Your task to perform on an android device: uninstall "Google Sheets" Image 0: 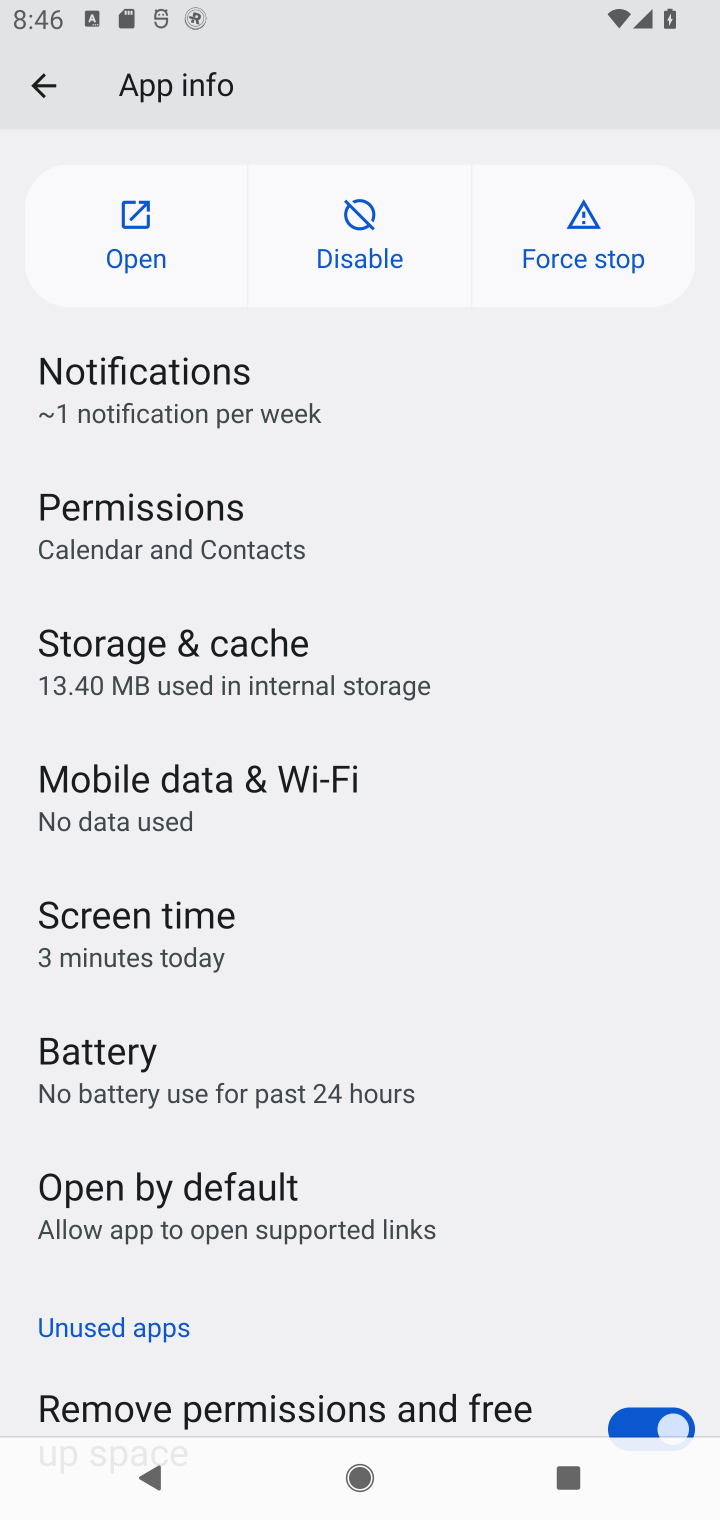
Step 0: press home button
Your task to perform on an android device: uninstall "Google Sheets" Image 1: 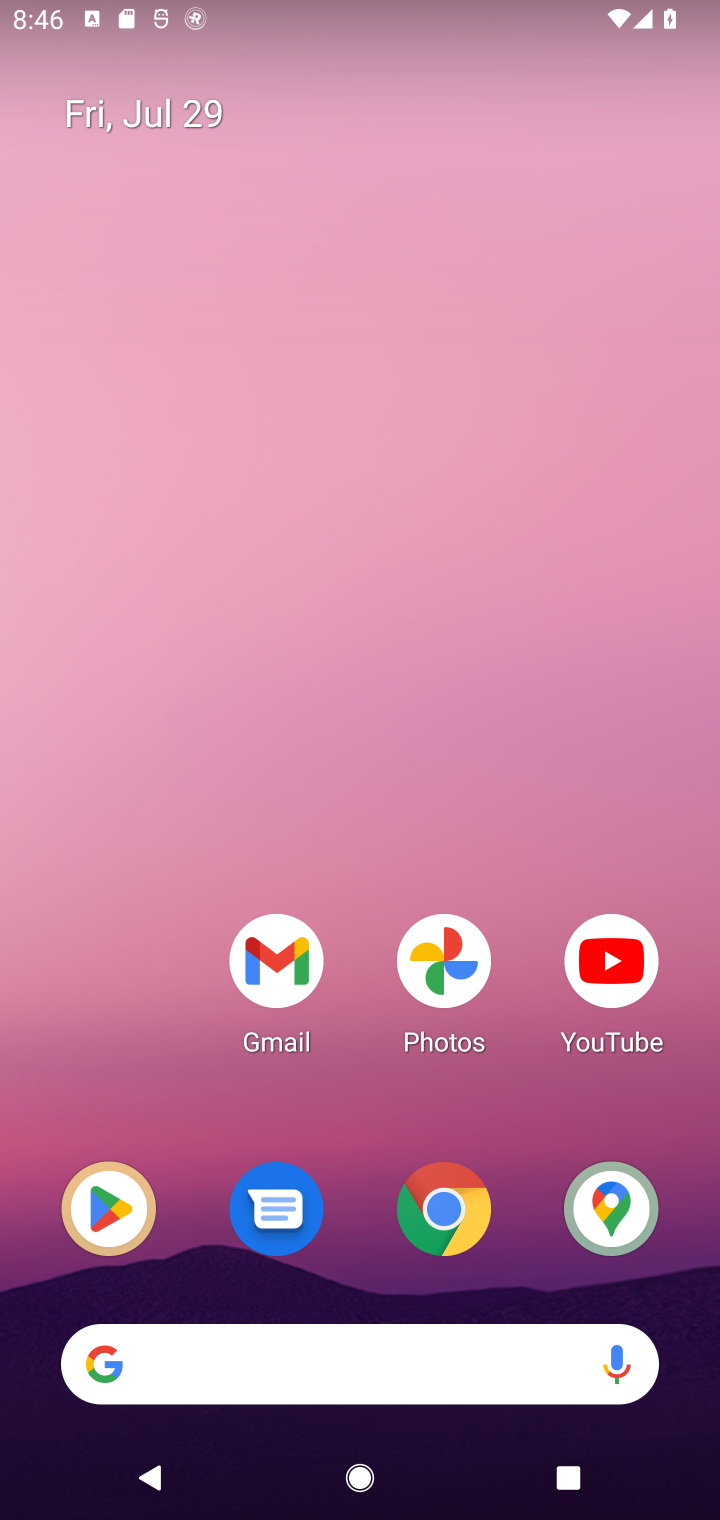
Step 1: click (109, 1220)
Your task to perform on an android device: uninstall "Google Sheets" Image 2: 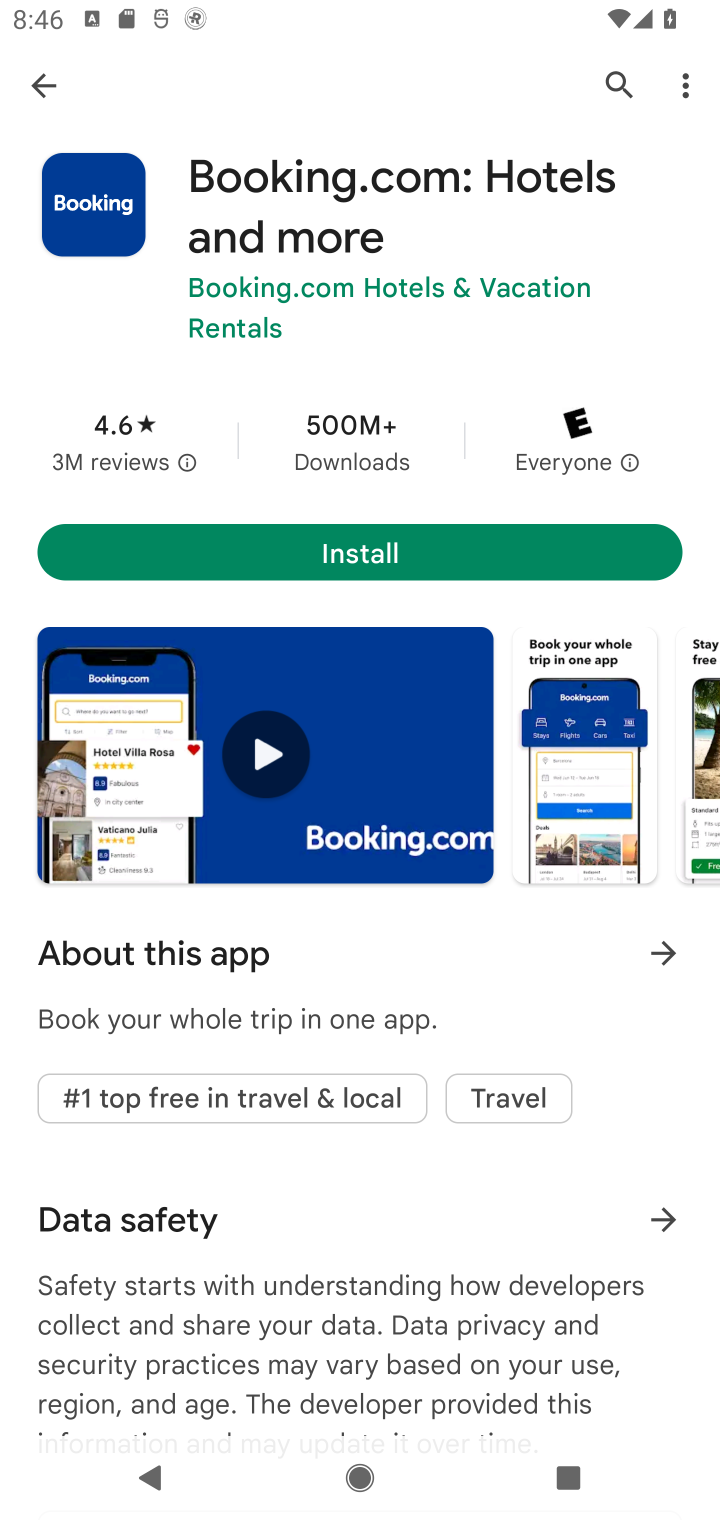
Step 2: click (608, 84)
Your task to perform on an android device: uninstall "Google Sheets" Image 3: 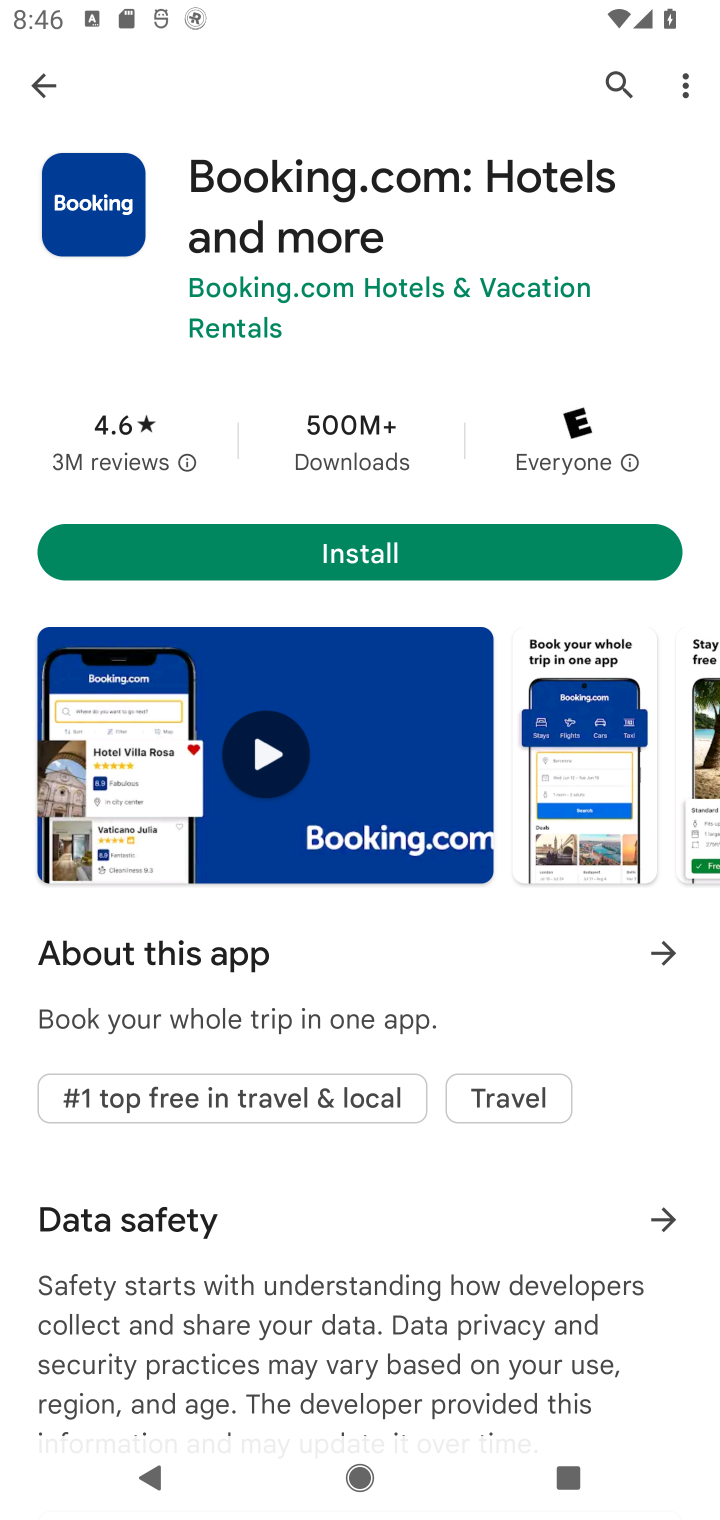
Step 3: click (625, 63)
Your task to perform on an android device: uninstall "Google Sheets" Image 4: 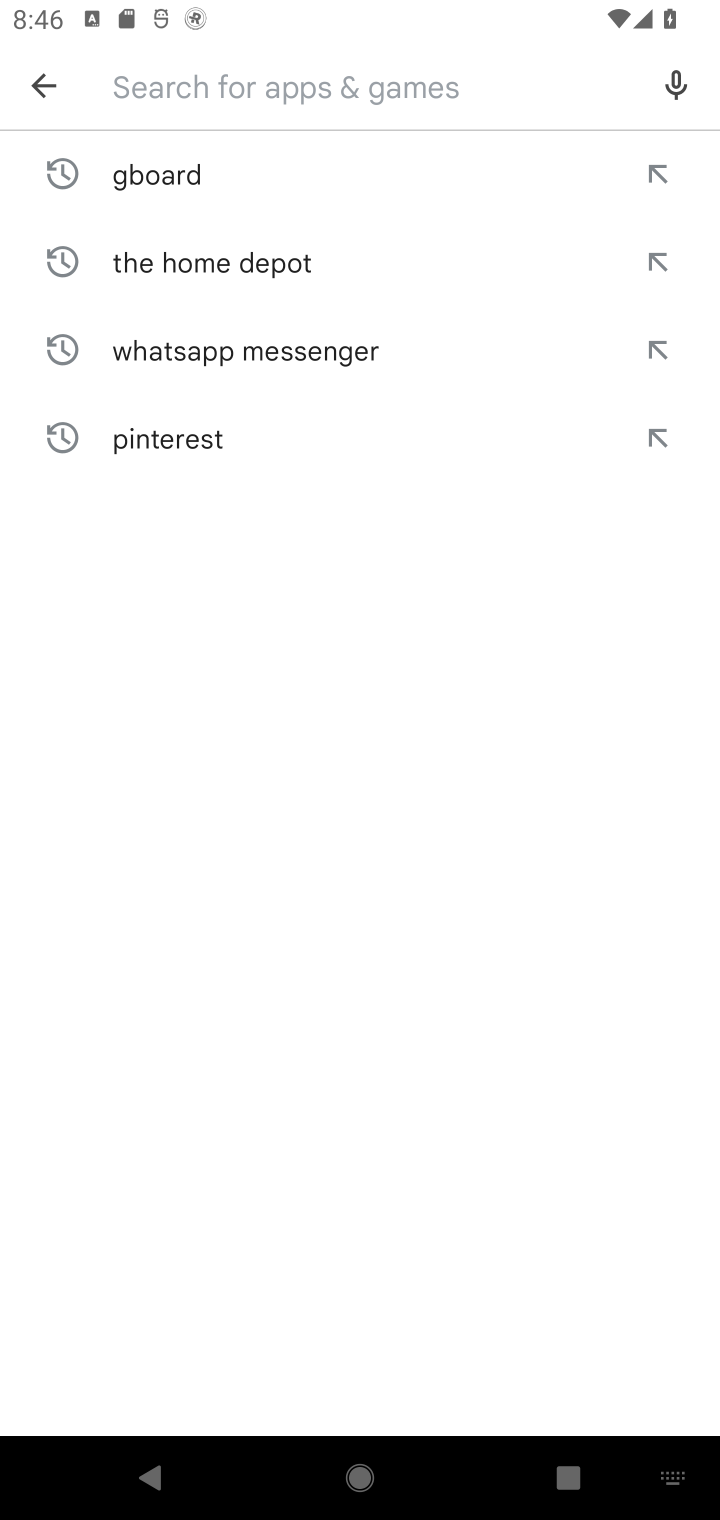
Step 4: type "Google Sheets"
Your task to perform on an android device: uninstall "Google Sheets" Image 5: 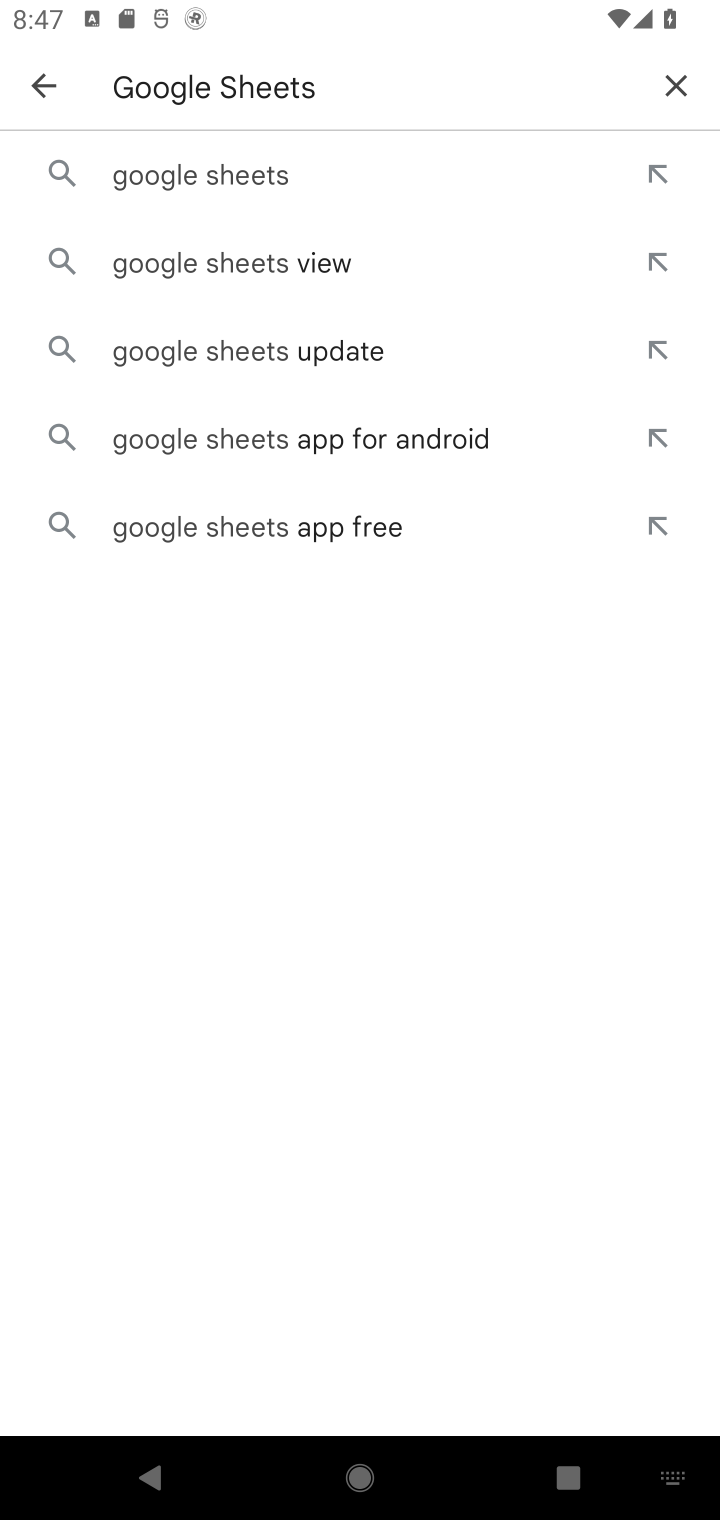
Step 5: click (183, 177)
Your task to perform on an android device: uninstall "Google Sheets" Image 6: 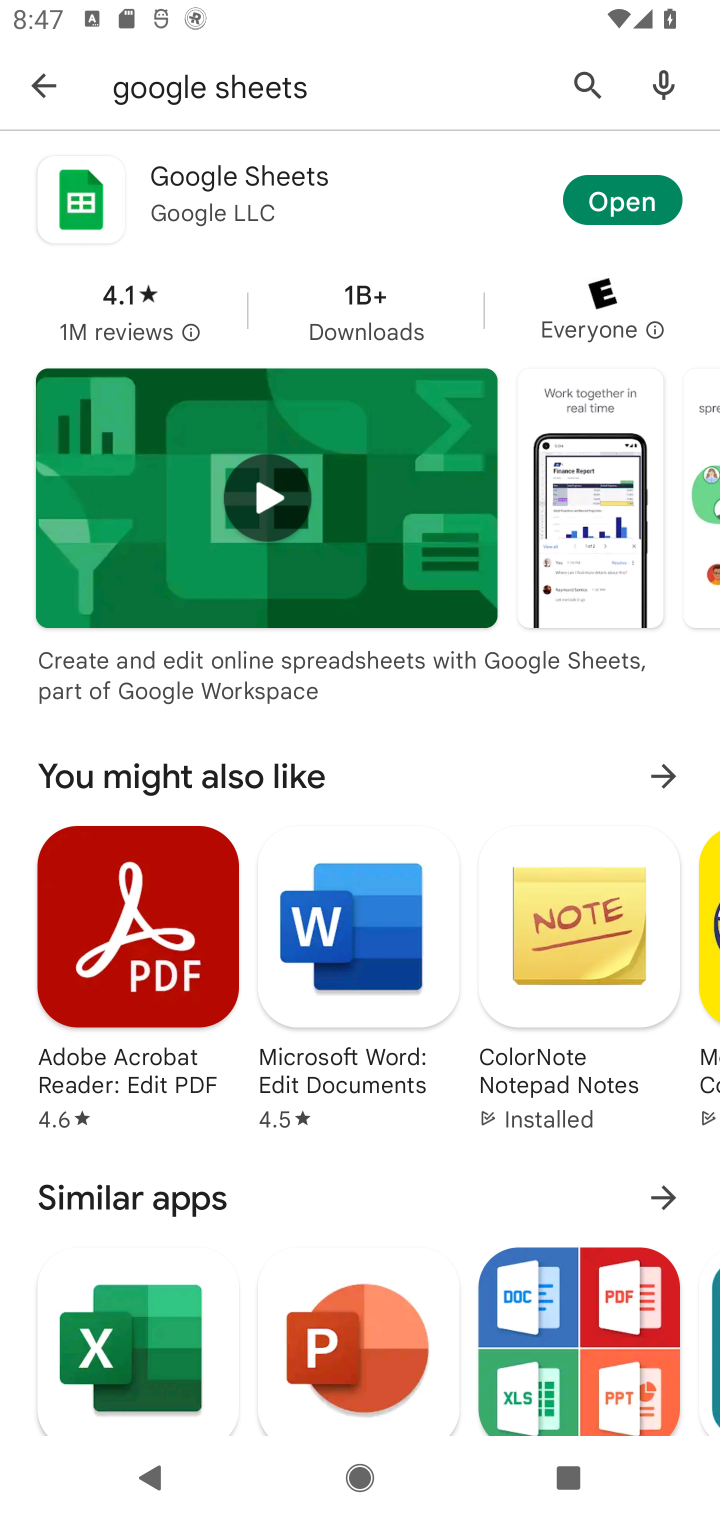
Step 6: click (133, 178)
Your task to perform on an android device: uninstall "Google Sheets" Image 7: 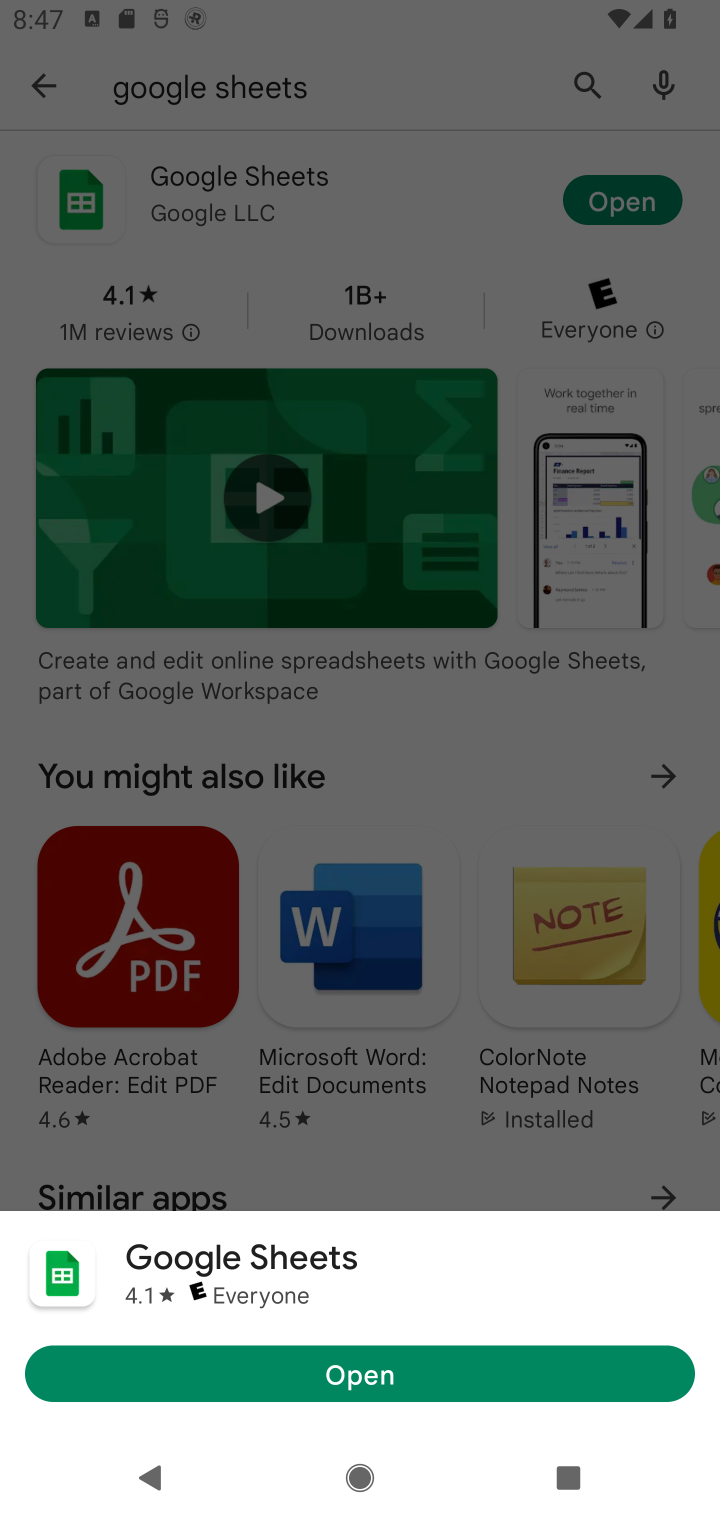
Step 7: press home button
Your task to perform on an android device: uninstall "Google Sheets" Image 8: 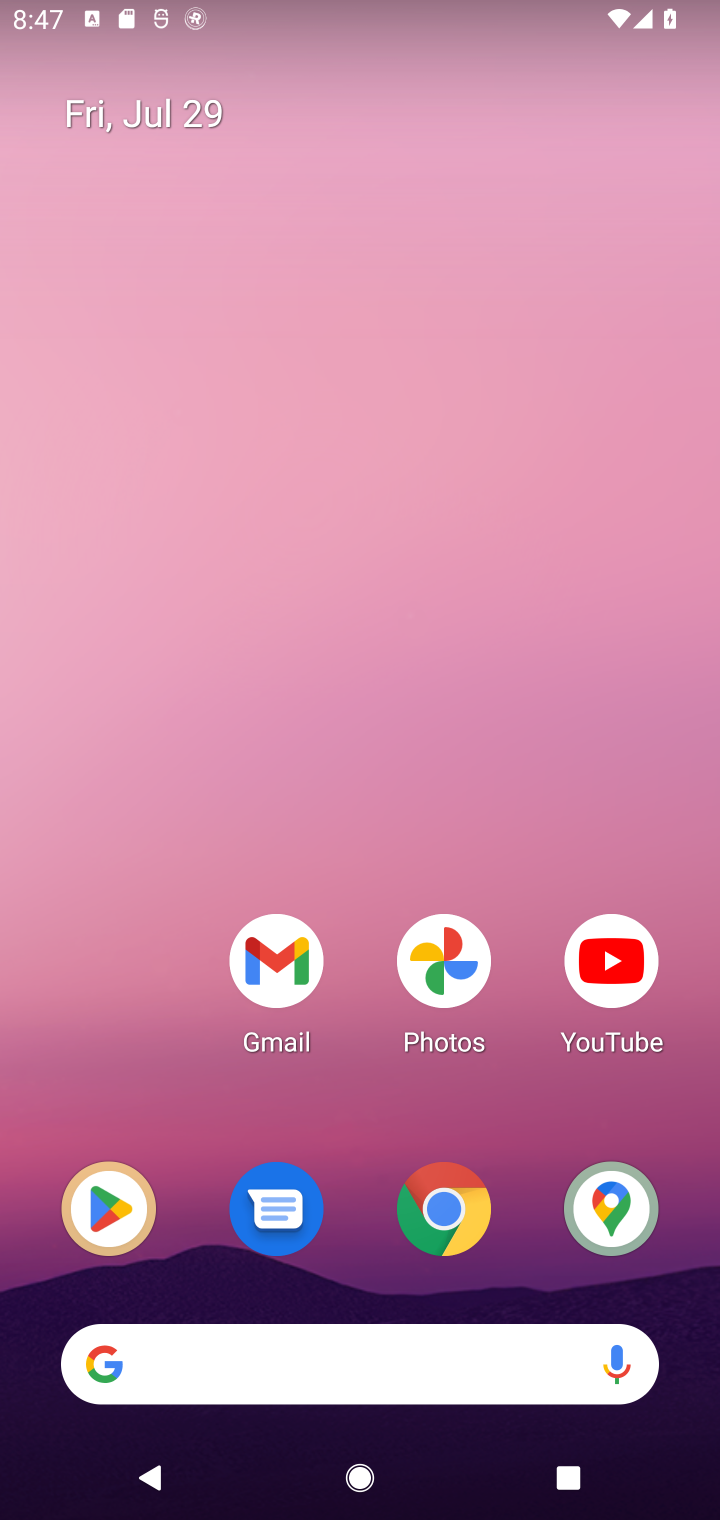
Step 8: drag from (327, 1109) to (386, 79)
Your task to perform on an android device: uninstall "Google Sheets" Image 9: 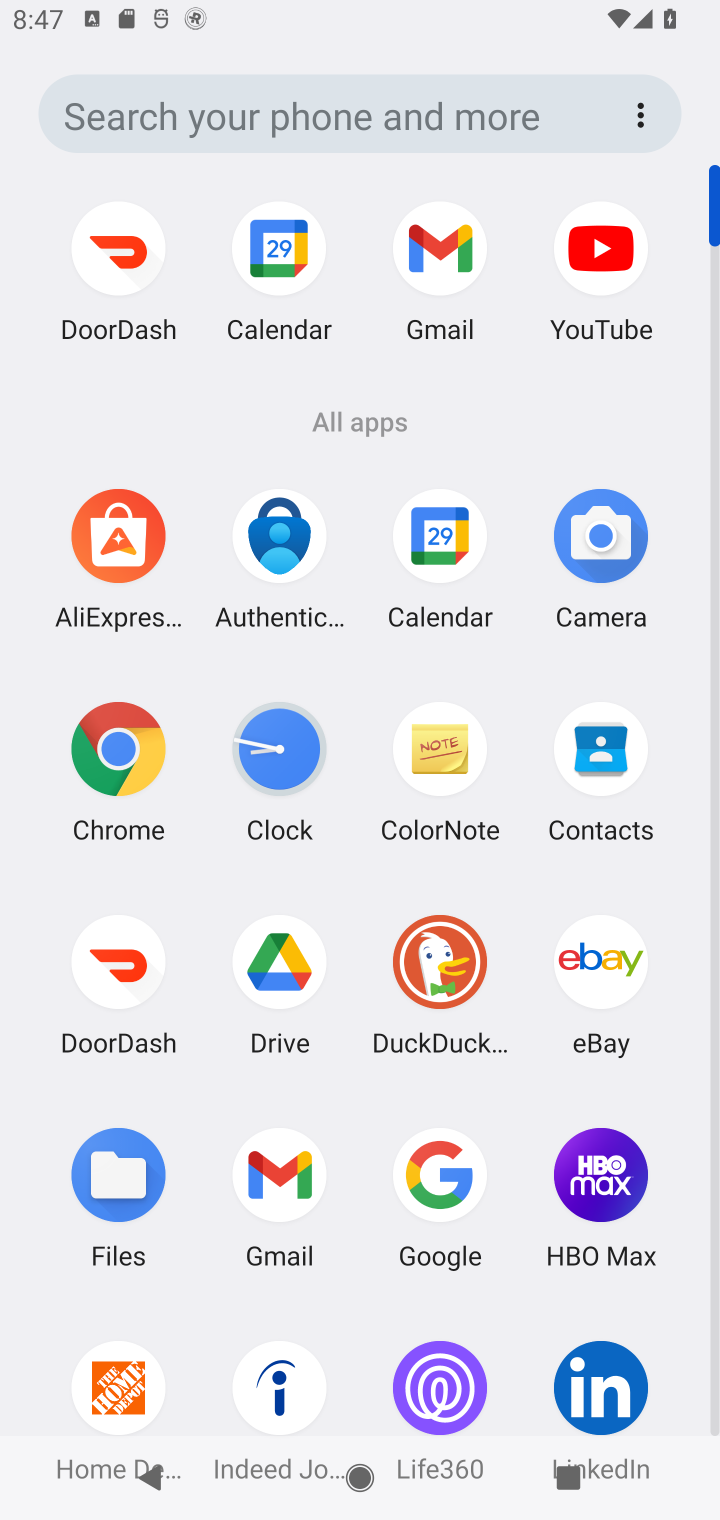
Step 9: drag from (683, 1055) to (711, 649)
Your task to perform on an android device: uninstall "Google Sheets" Image 10: 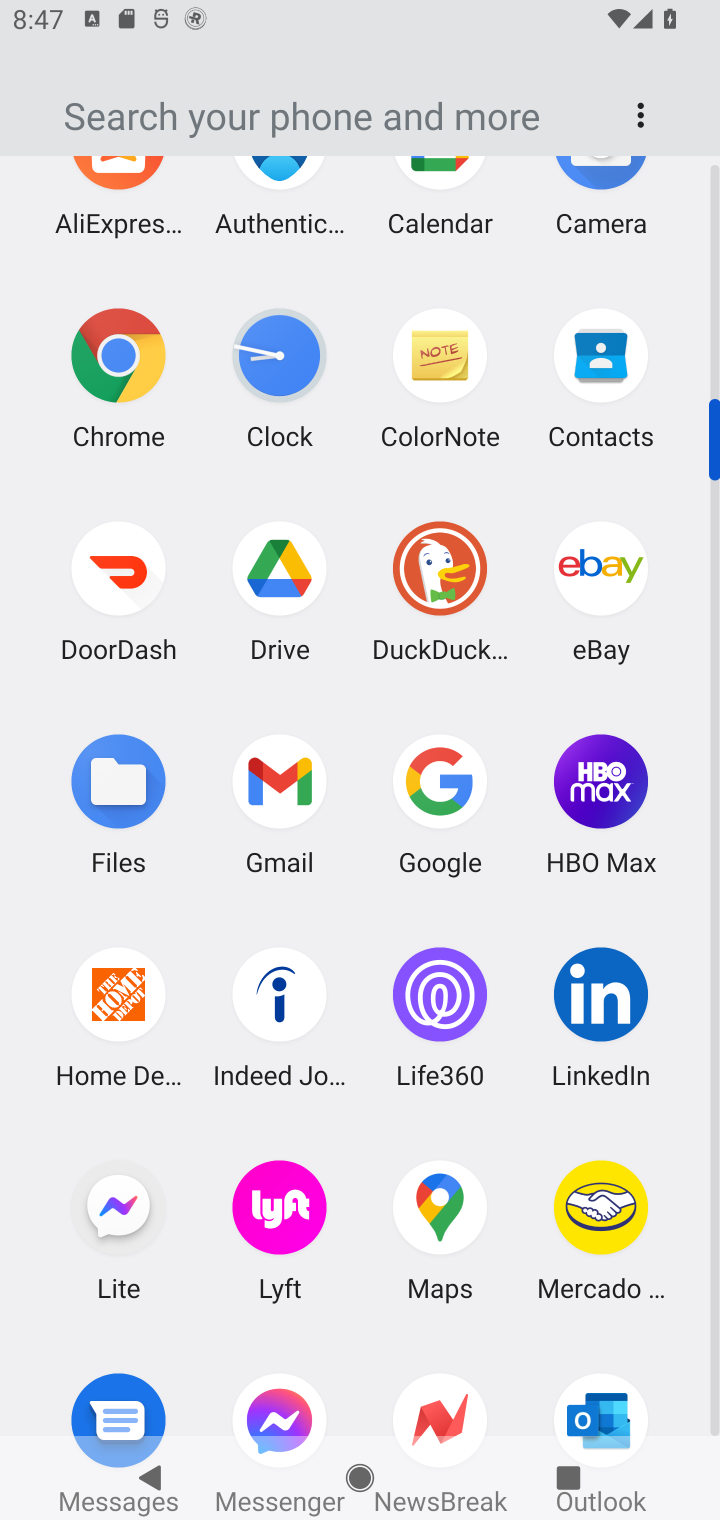
Step 10: click (699, 1085)
Your task to perform on an android device: uninstall "Google Sheets" Image 11: 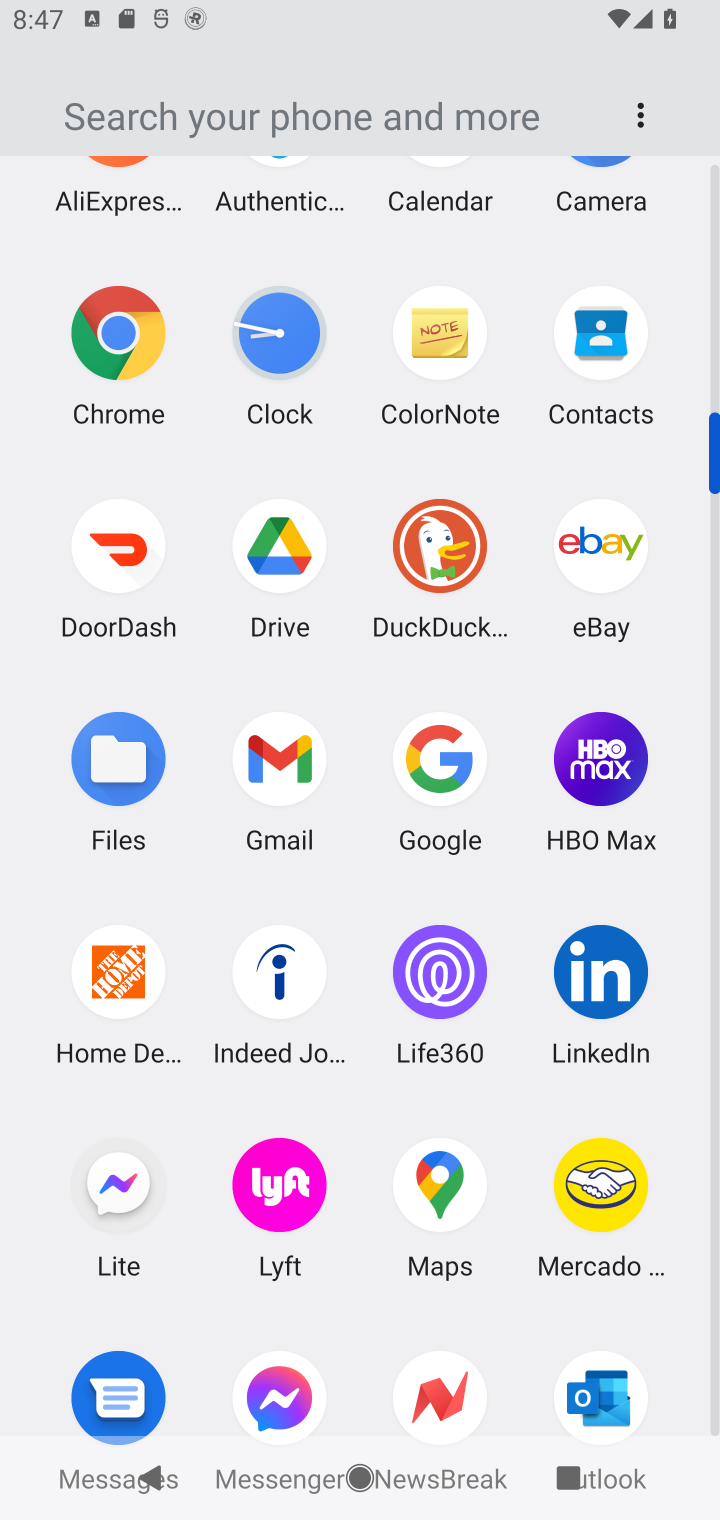
Step 11: drag from (699, 1227) to (717, 844)
Your task to perform on an android device: uninstall "Google Sheets" Image 12: 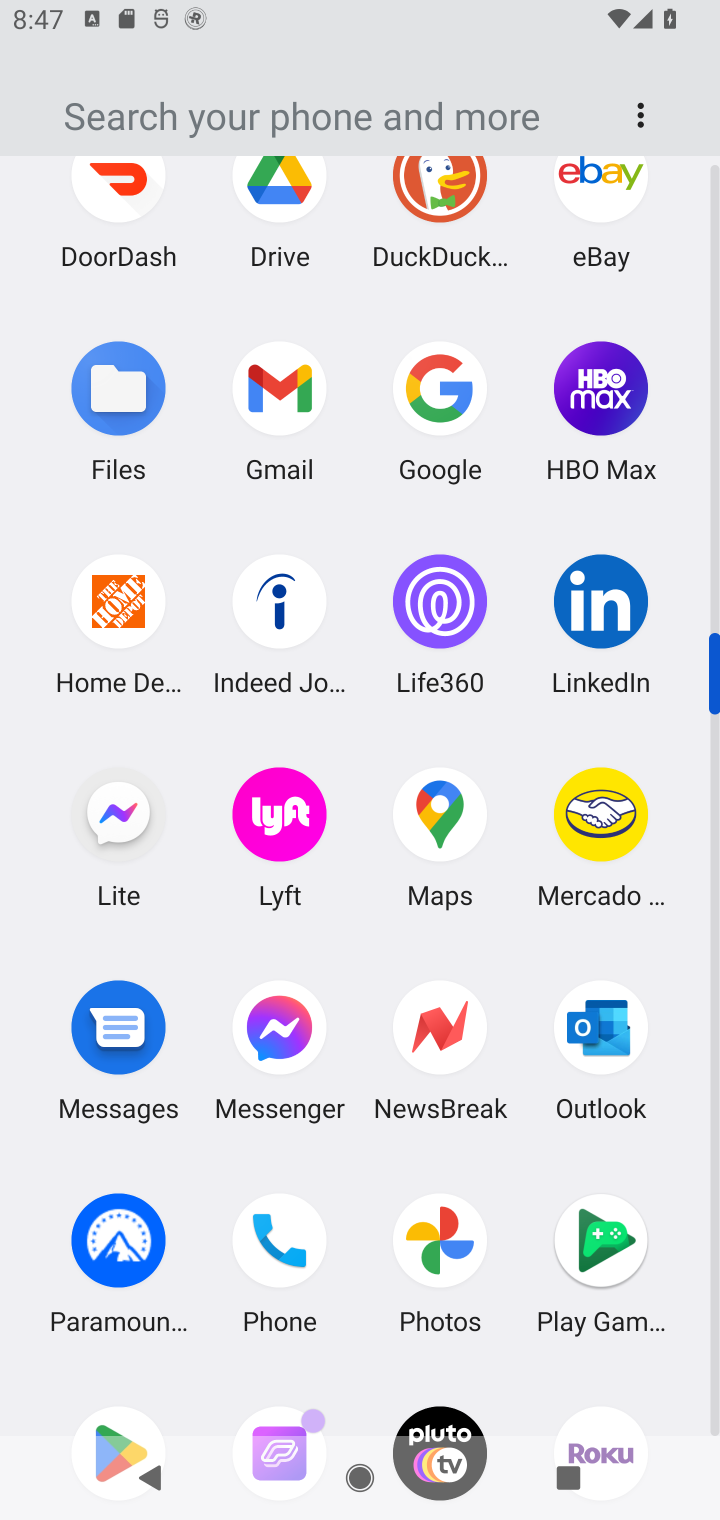
Step 12: drag from (704, 1185) to (718, 670)
Your task to perform on an android device: uninstall "Google Sheets" Image 13: 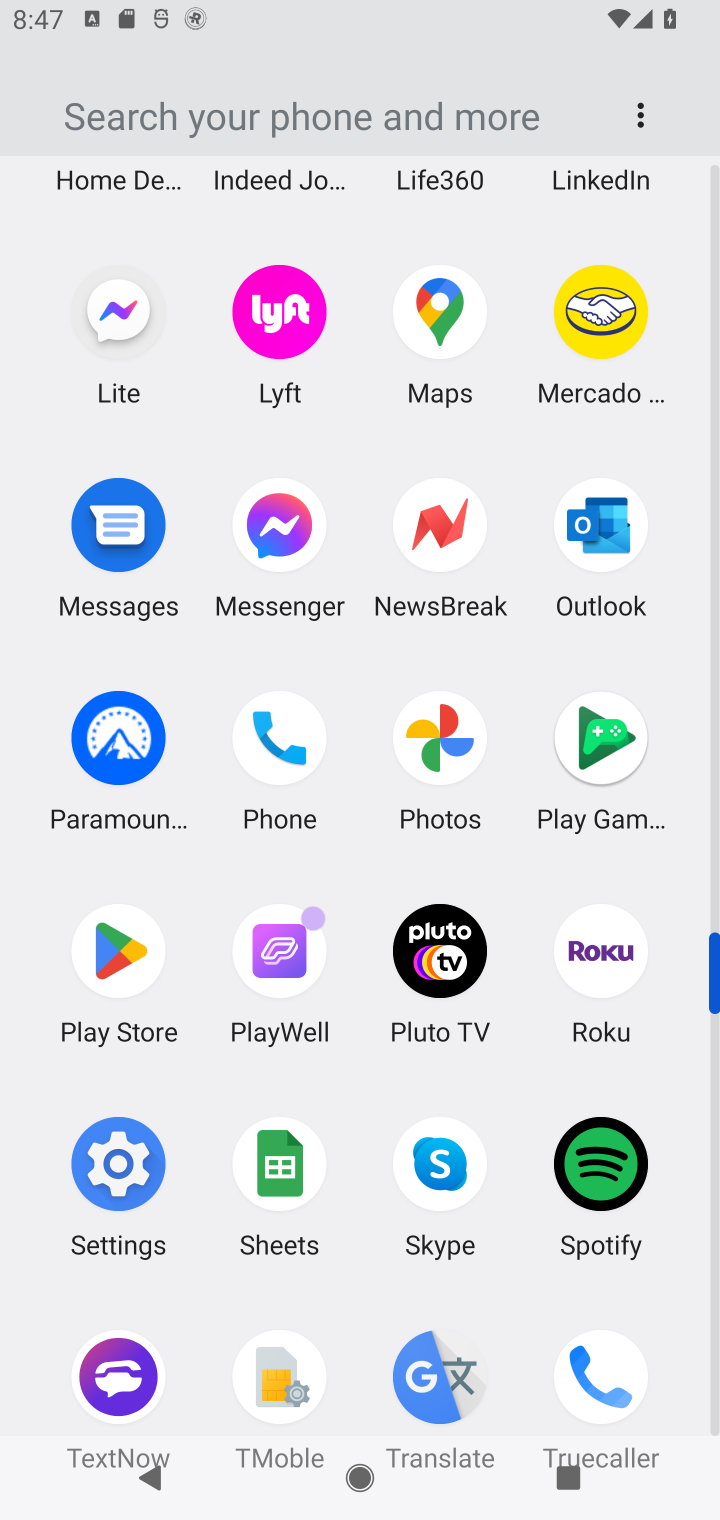
Step 13: click (291, 1195)
Your task to perform on an android device: uninstall "Google Sheets" Image 14: 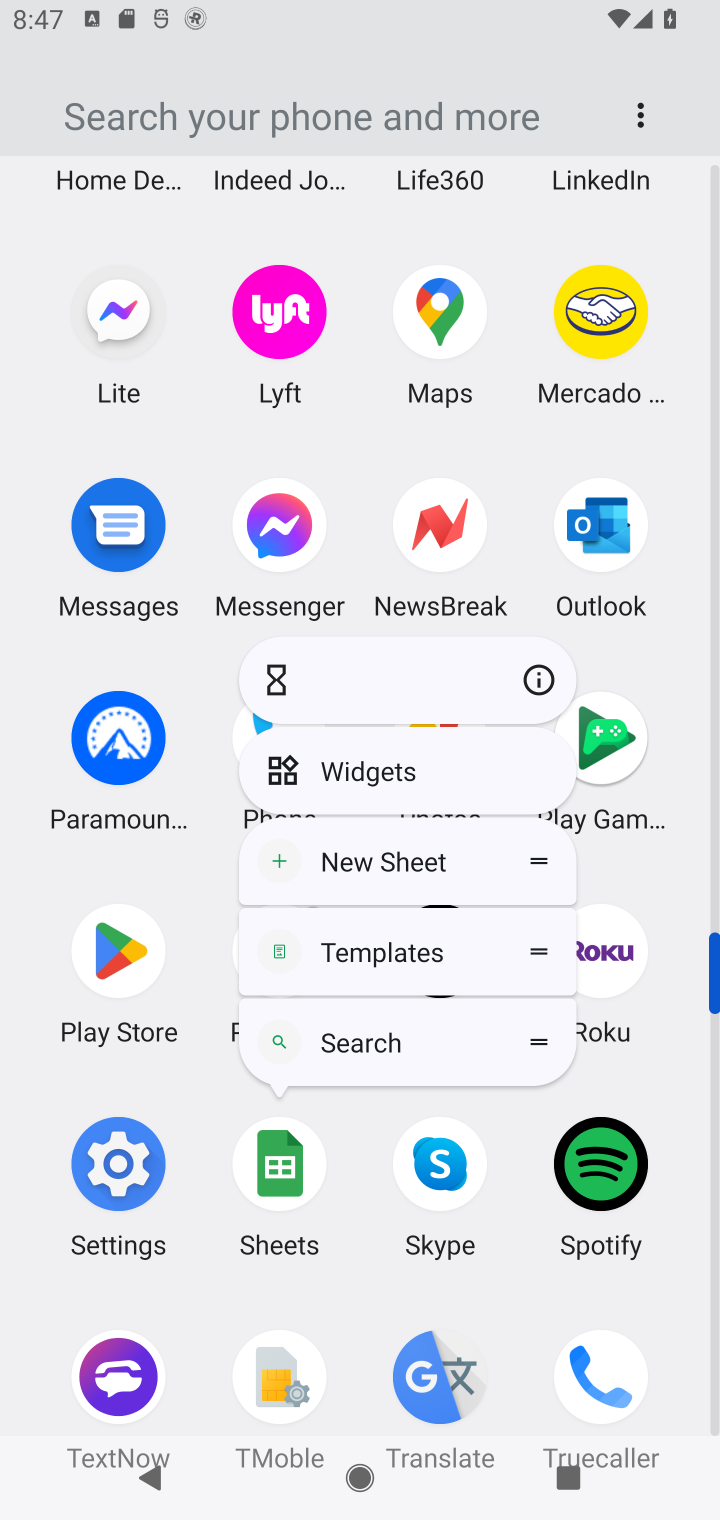
Step 14: click (539, 678)
Your task to perform on an android device: uninstall "Google Sheets" Image 15: 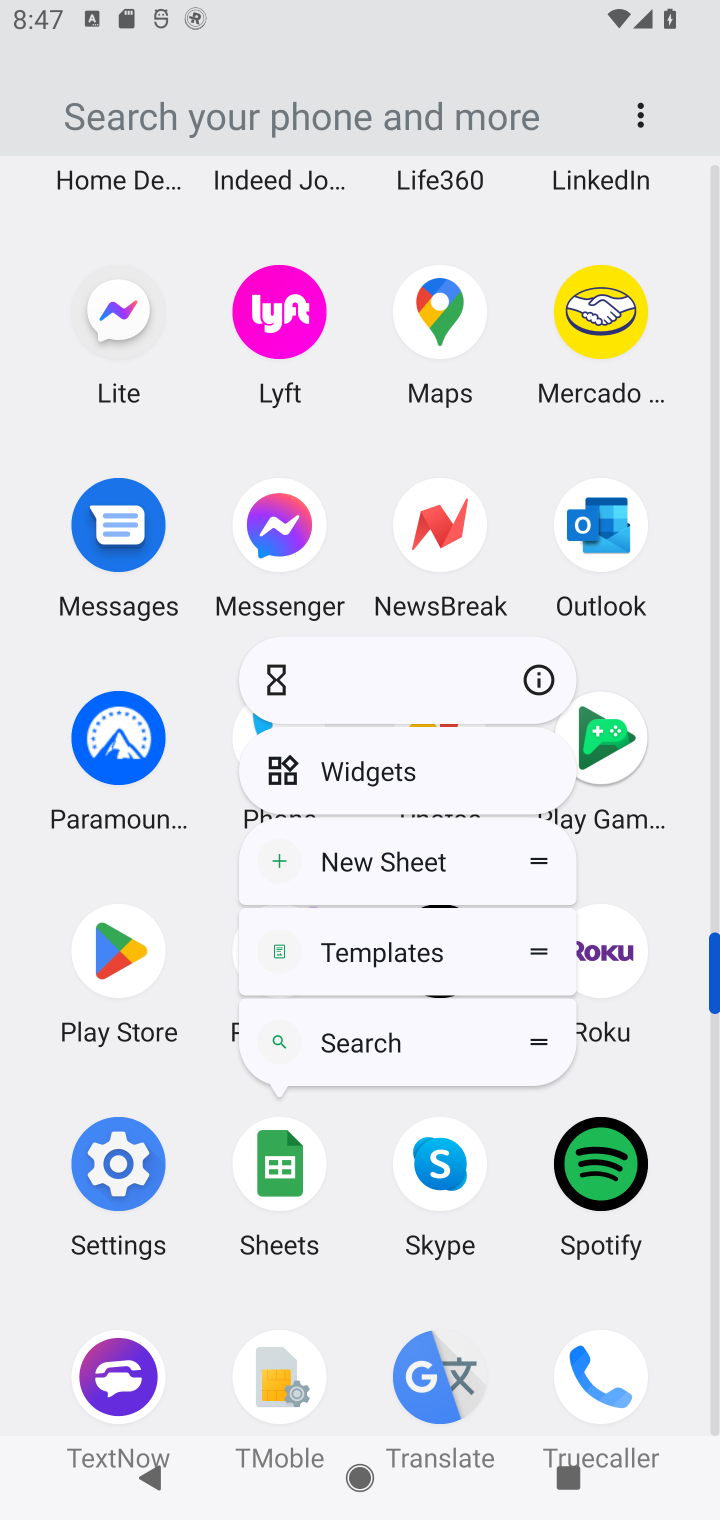
Step 15: click (539, 678)
Your task to perform on an android device: uninstall "Google Sheets" Image 16: 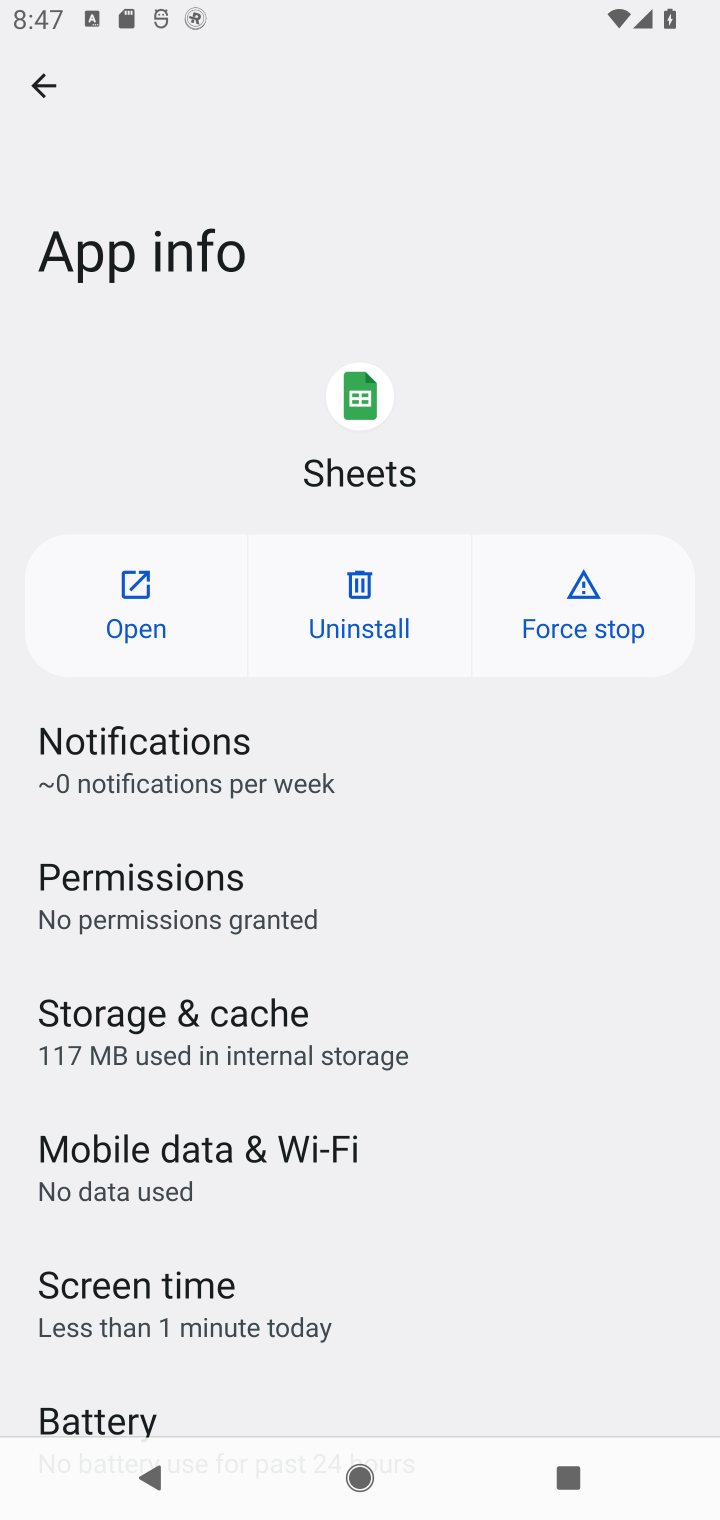
Step 16: click (327, 615)
Your task to perform on an android device: uninstall "Google Sheets" Image 17: 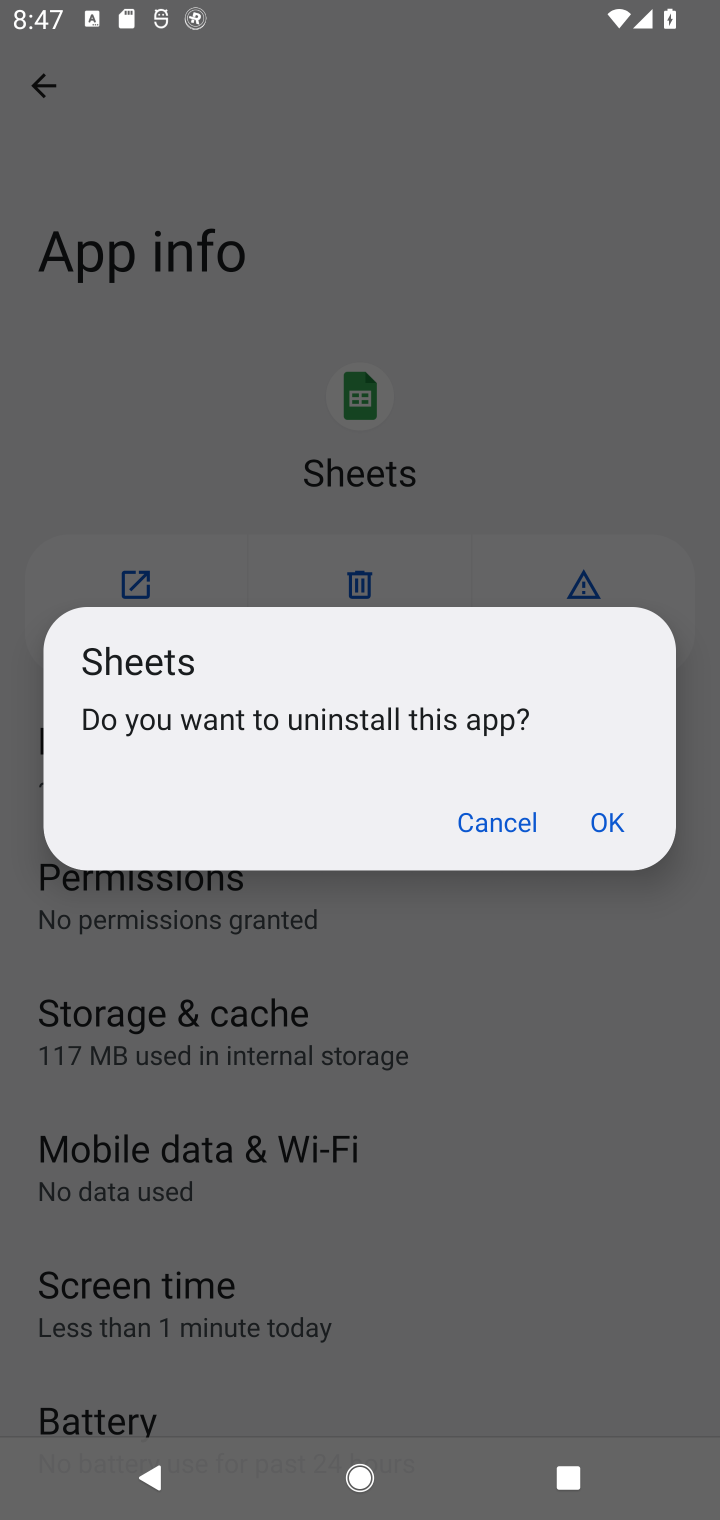
Step 17: click (603, 820)
Your task to perform on an android device: uninstall "Google Sheets" Image 18: 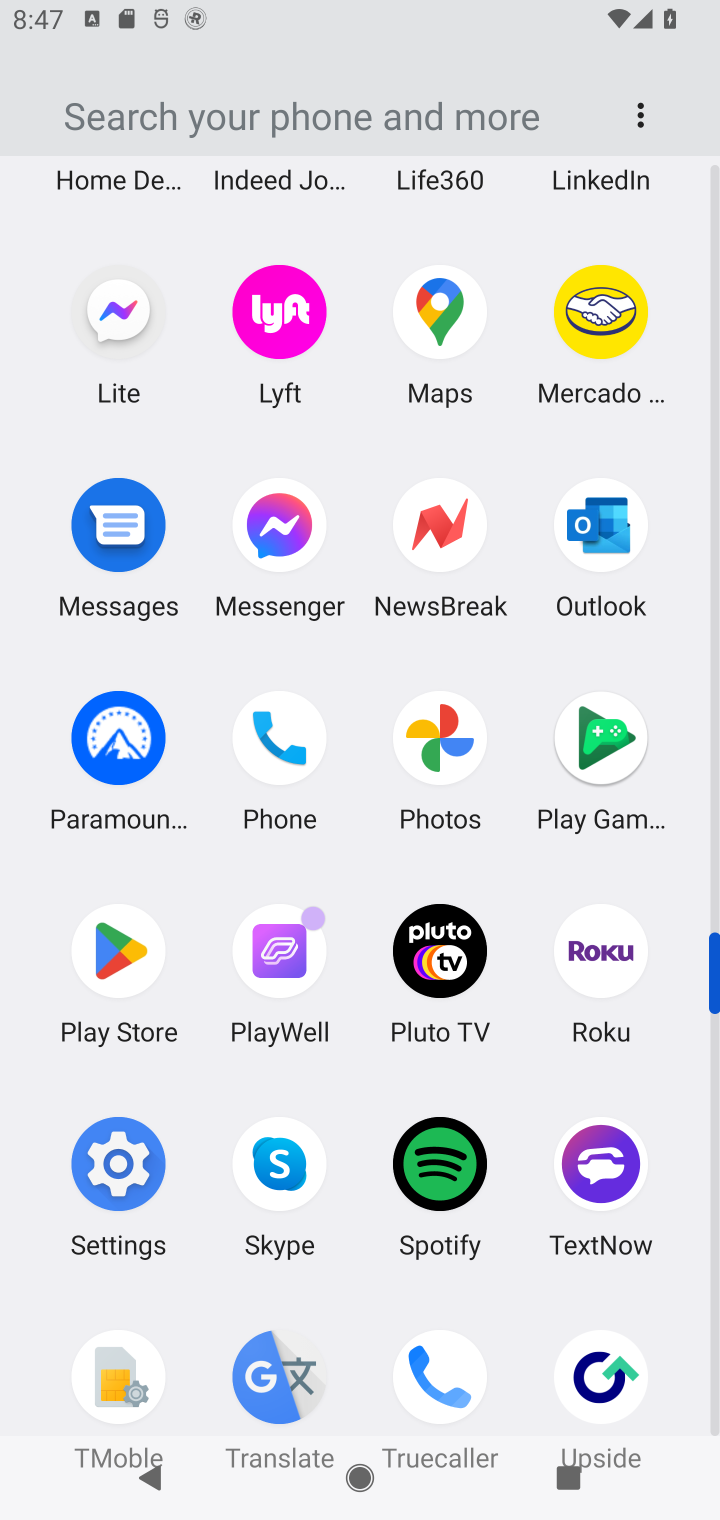
Step 18: task complete